Your task to perform on an android device: Open Reddit.com Image 0: 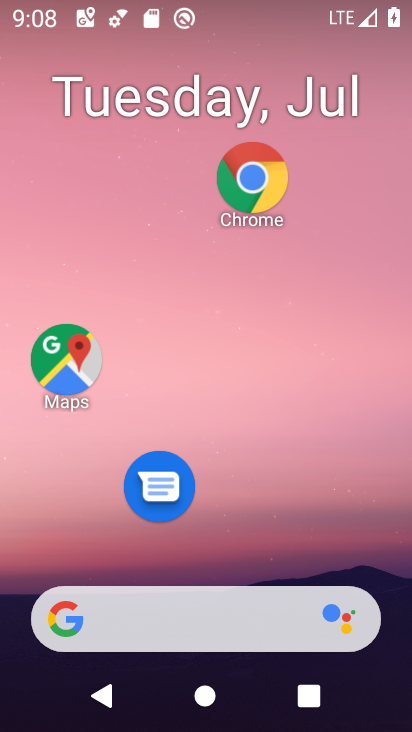
Step 0: drag from (210, 595) to (286, 26)
Your task to perform on an android device: Open Reddit.com Image 1: 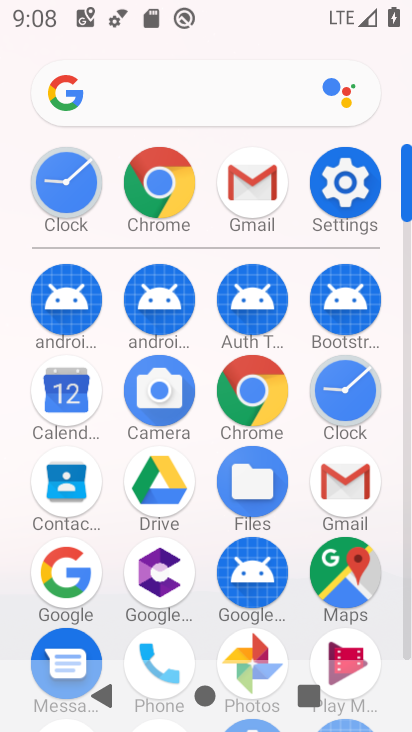
Step 1: click (158, 195)
Your task to perform on an android device: Open Reddit.com Image 2: 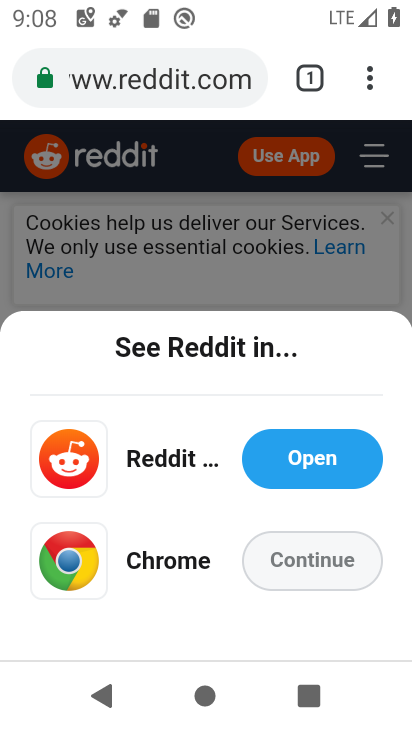
Step 2: task complete